Your task to perform on an android device: Open Google Chrome and click the shortcut for Amazon.com Image 0: 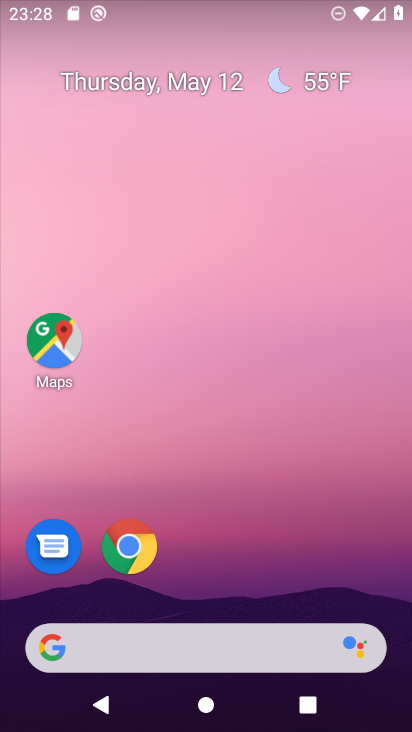
Step 0: click (129, 540)
Your task to perform on an android device: Open Google Chrome and click the shortcut for Amazon.com Image 1: 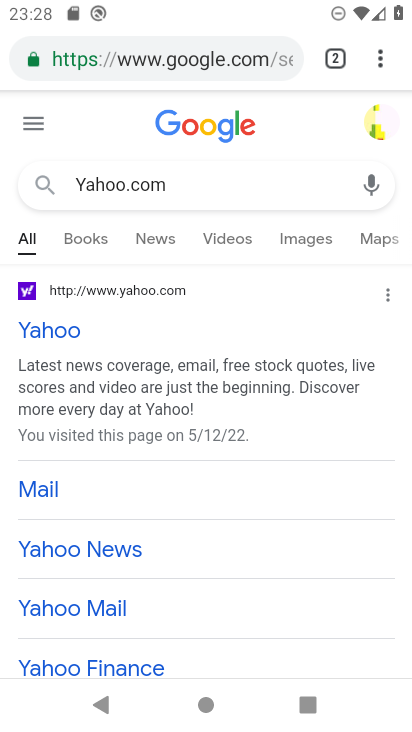
Step 1: click (175, 77)
Your task to perform on an android device: Open Google Chrome and click the shortcut for Amazon.com Image 2: 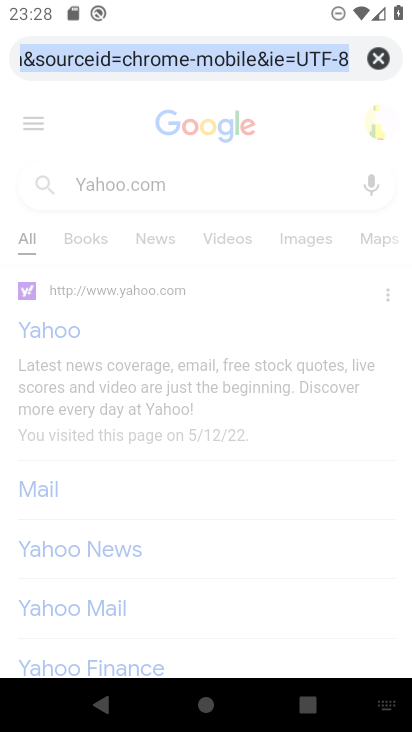
Step 2: type "Amazon.com"
Your task to perform on an android device: Open Google Chrome and click the shortcut for Amazon.com Image 3: 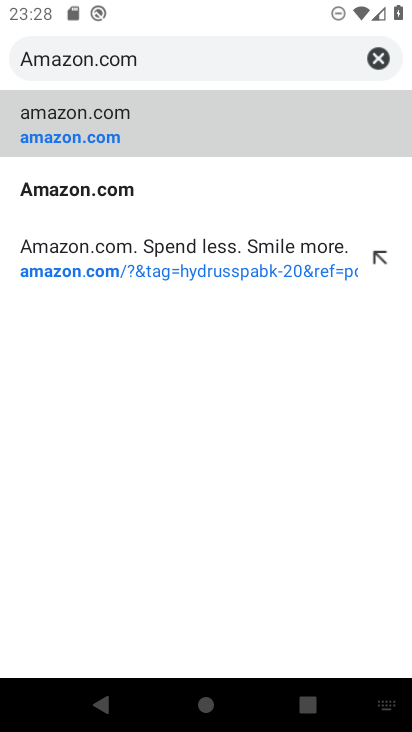
Step 3: click (124, 138)
Your task to perform on an android device: Open Google Chrome and click the shortcut for Amazon.com Image 4: 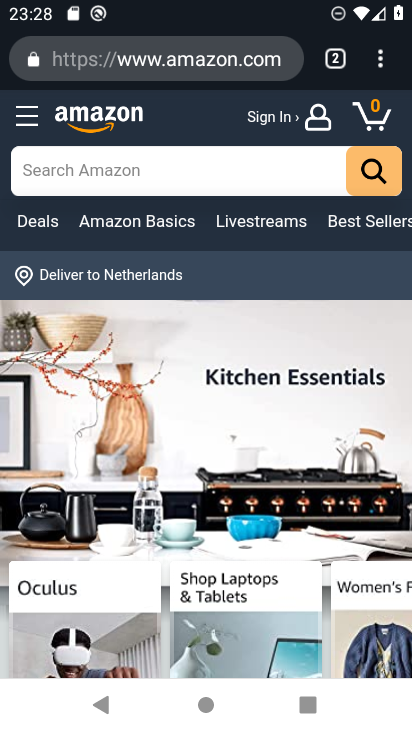
Step 4: task complete